Your task to perform on an android device: See recent photos Image 0: 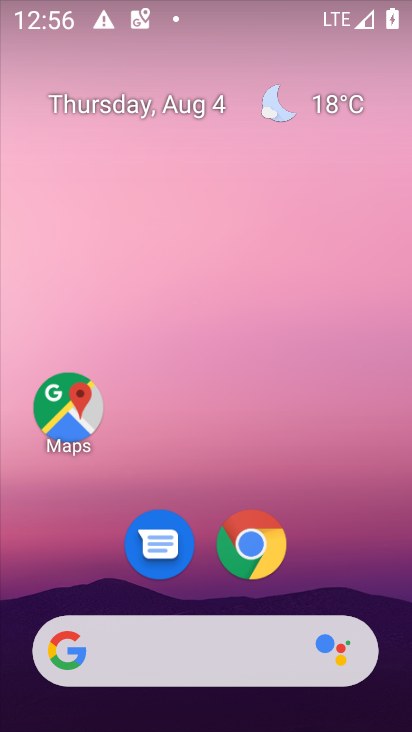
Step 0: drag from (362, 718) to (305, 92)
Your task to perform on an android device: See recent photos Image 1: 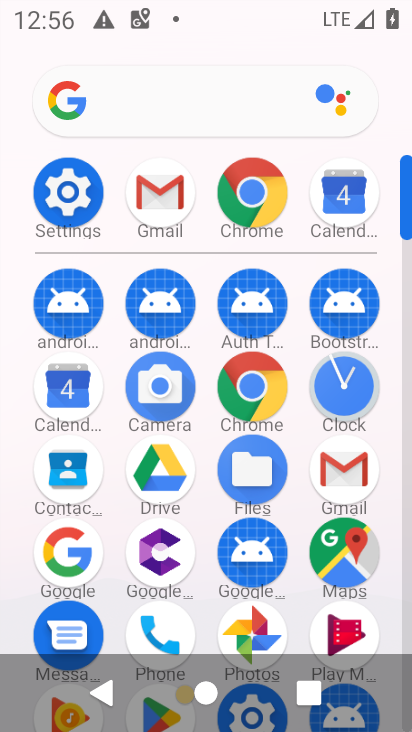
Step 1: click (251, 603)
Your task to perform on an android device: See recent photos Image 2: 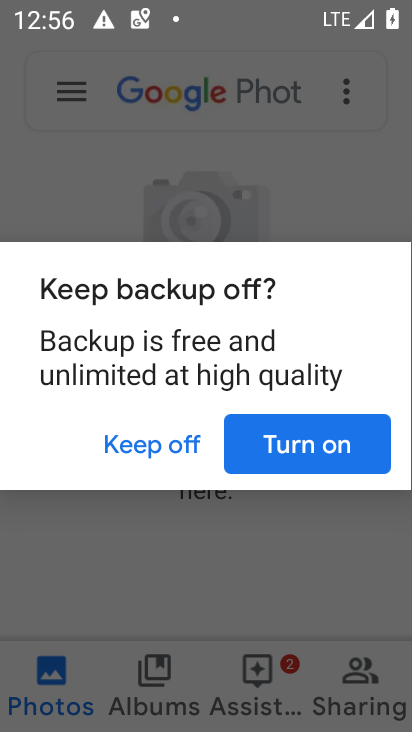
Step 2: click (279, 451)
Your task to perform on an android device: See recent photos Image 3: 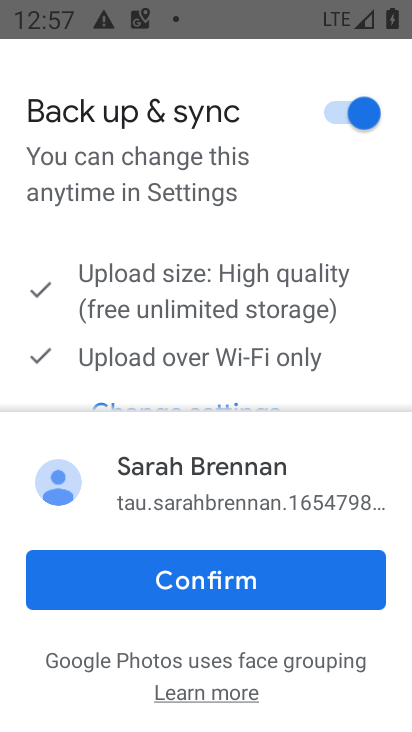
Step 3: click (192, 581)
Your task to perform on an android device: See recent photos Image 4: 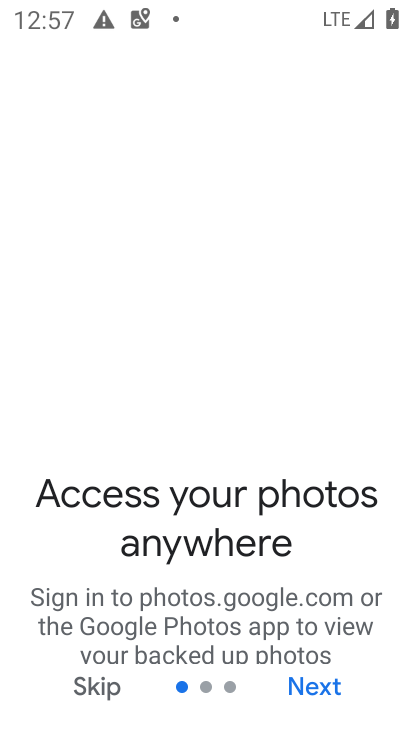
Step 4: click (298, 672)
Your task to perform on an android device: See recent photos Image 5: 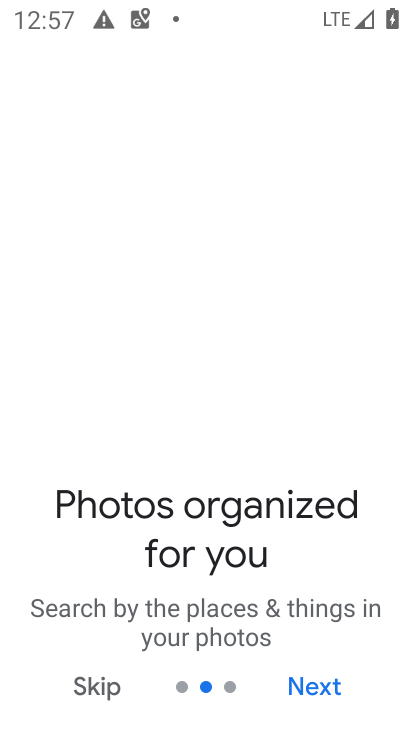
Step 5: click (317, 693)
Your task to perform on an android device: See recent photos Image 6: 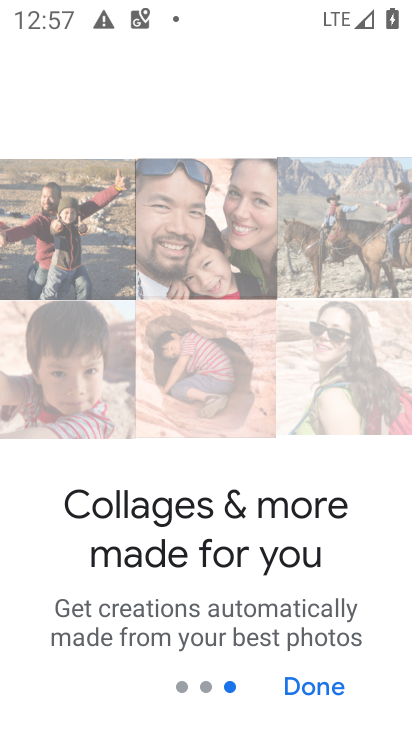
Step 6: click (317, 693)
Your task to perform on an android device: See recent photos Image 7: 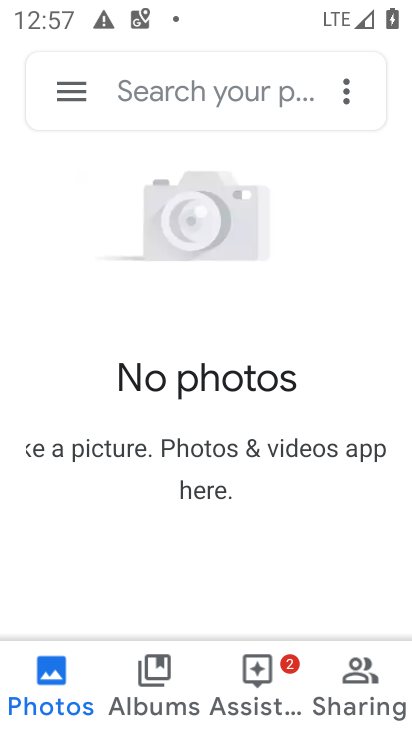
Step 7: click (317, 686)
Your task to perform on an android device: See recent photos Image 8: 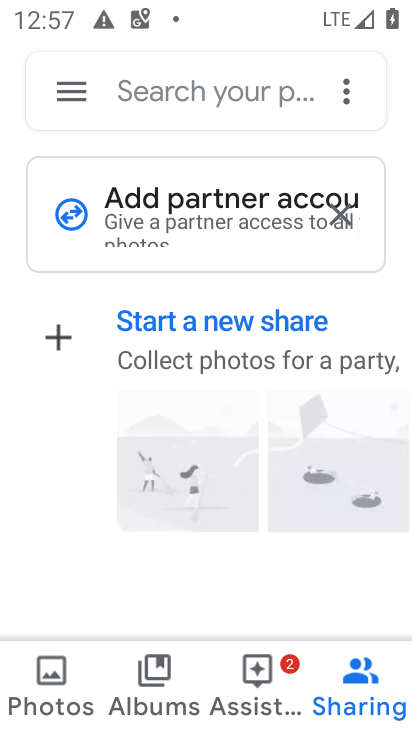
Step 8: click (41, 676)
Your task to perform on an android device: See recent photos Image 9: 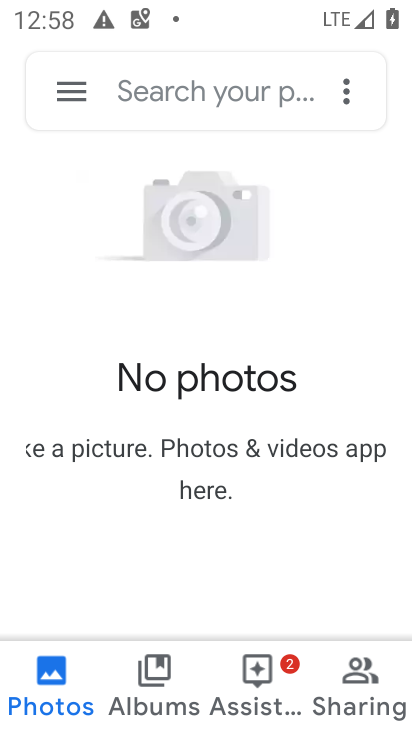
Step 9: task complete